Your task to perform on an android device: turn off priority inbox in the gmail app Image 0: 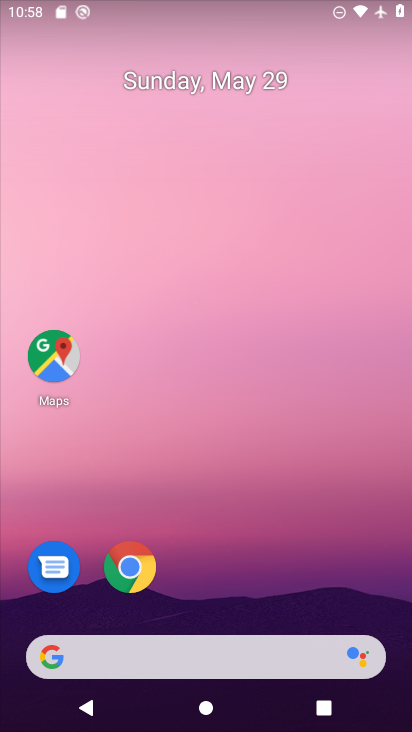
Step 0: drag from (372, 604) to (326, 62)
Your task to perform on an android device: turn off priority inbox in the gmail app Image 1: 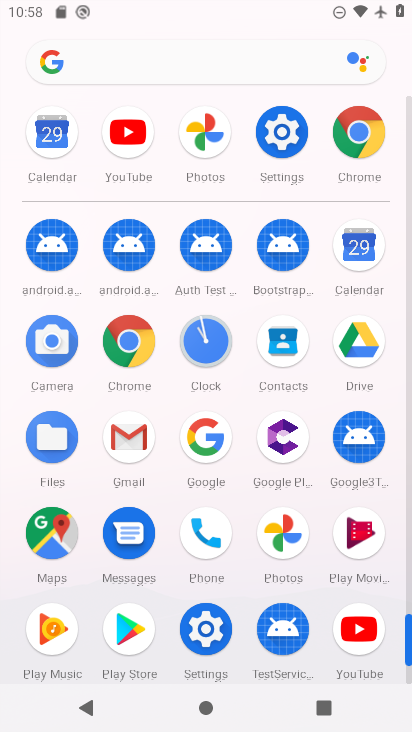
Step 1: click (128, 438)
Your task to perform on an android device: turn off priority inbox in the gmail app Image 2: 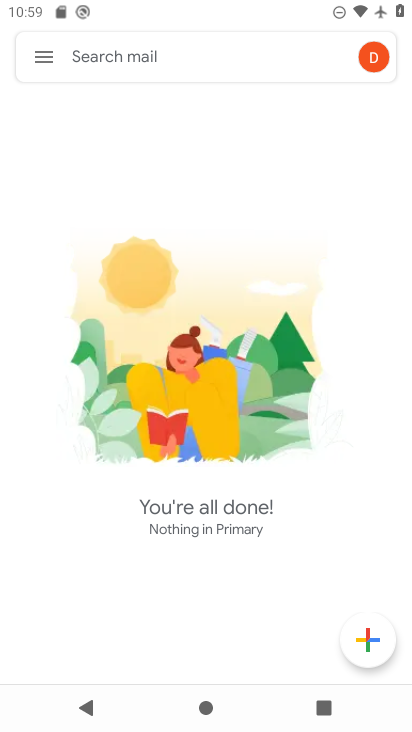
Step 2: click (44, 50)
Your task to perform on an android device: turn off priority inbox in the gmail app Image 3: 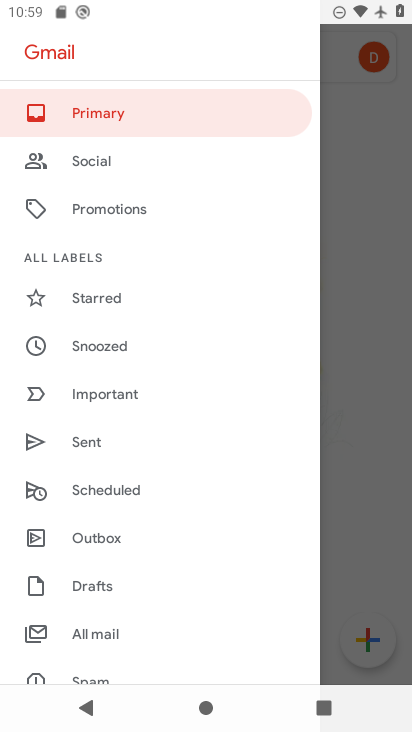
Step 3: drag from (216, 610) to (168, 258)
Your task to perform on an android device: turn off priority inbox in the gmail app Image 4: 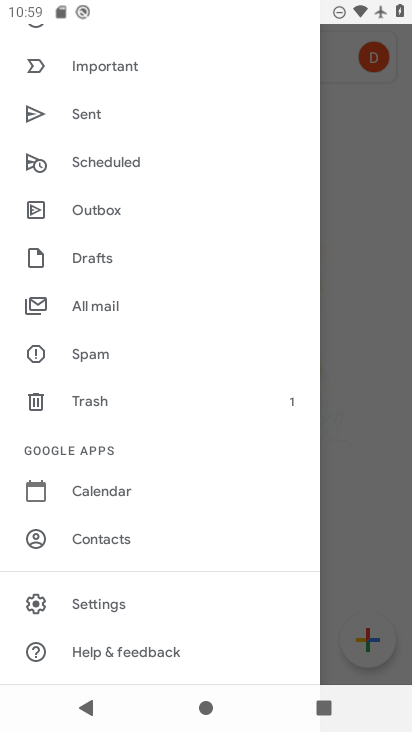
Step 4: click (95, 604)
Your task to perform on an android device: turn off priority inbox in the gmail app Image 5: 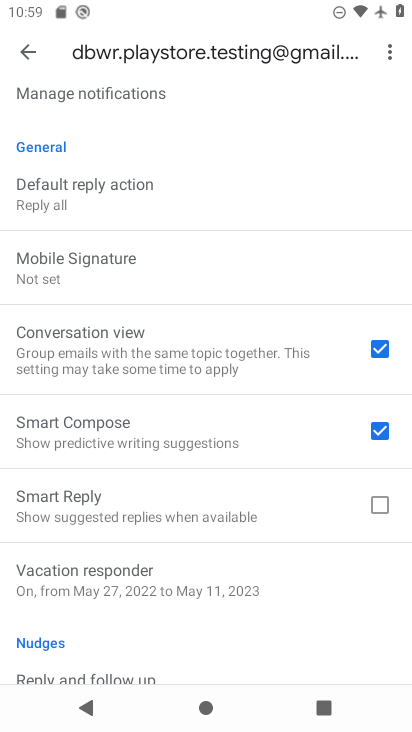
Step 5: drag from (281, 252) to (245, 557)
Your task to perform on an android device: turn off priority inbox in the gmail app Image 6: 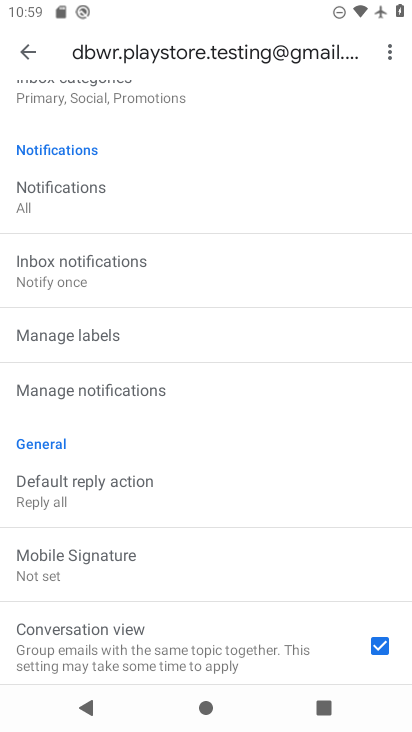
Step 6: drag from (256, 256) to (225, 488)
Your task to perform on an android device: turn off priority inbox in the gmail app Image 7: 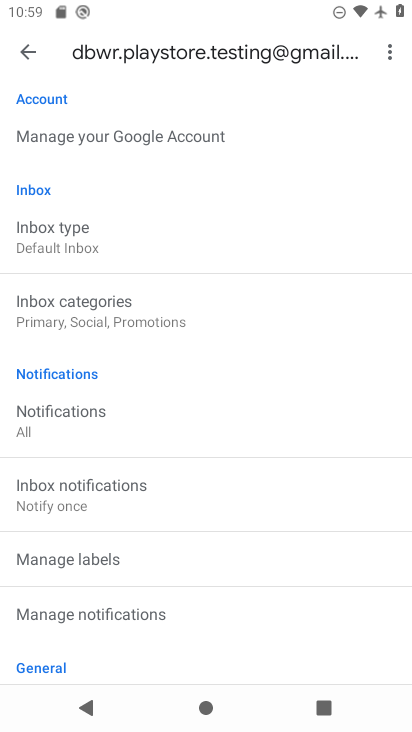
Step 7: click (49, 231)
Your task to perform on an android device: turn off priority inbox in the gmail app Image 8: 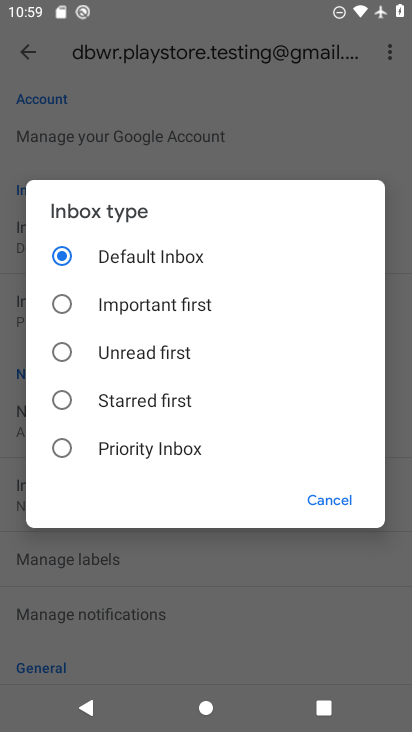
Step 8: task complete